Your task to perform on an android device: Open Amazon Image 0: 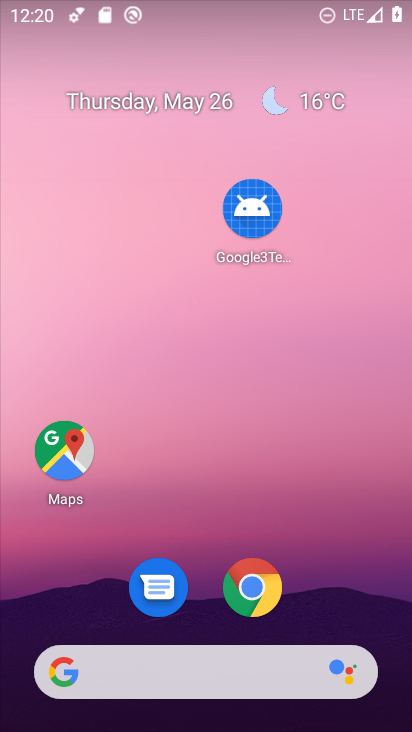
Step 0: click (264, 596)
Your task to perform on an android device: Open Amazon Image 1: 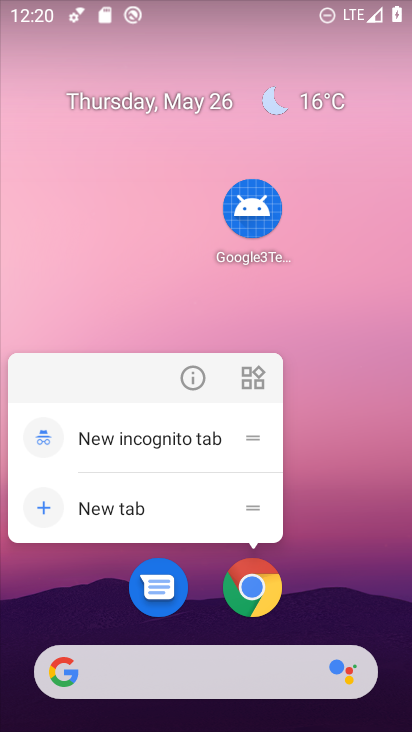
Step 1: click (264, 596)
Your task to perform on an android device: Open Amazon Image 2: 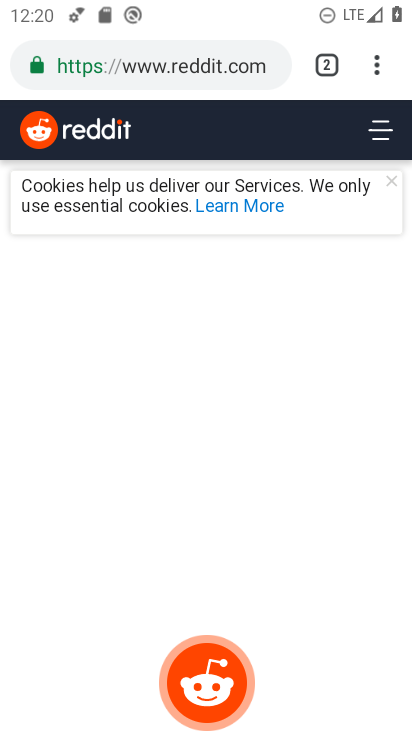
Step 2: click (154, 58)
Your task to perform on an android device: Open Amazon Image 3: 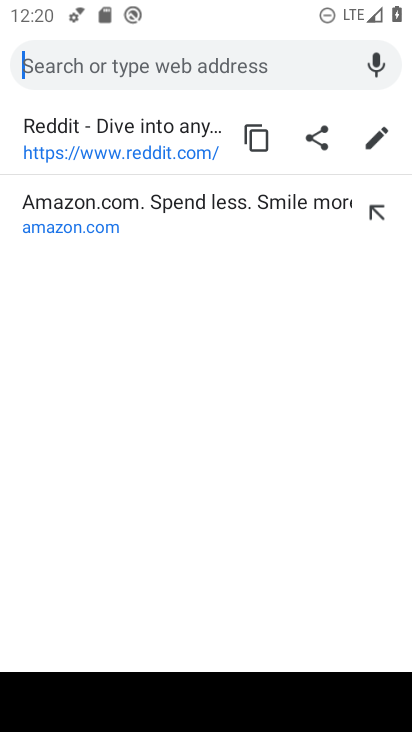
Step 3: type "amazon"
Your task to perform on an android device: Open Amazon Image 4: 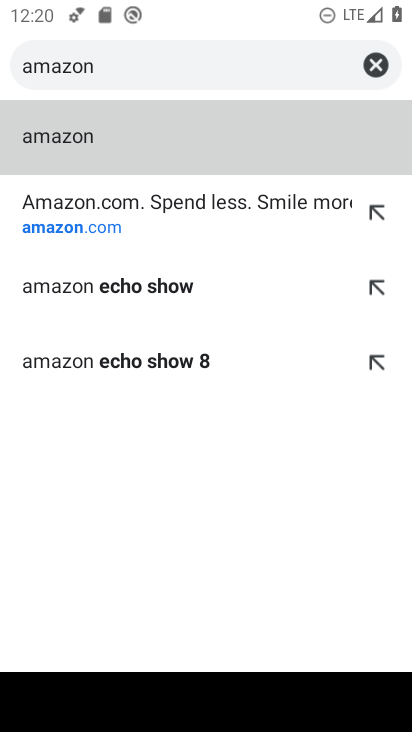
Step 4: click (250, 205)
Your task to perform on an android device: Open Amazon Image 5: 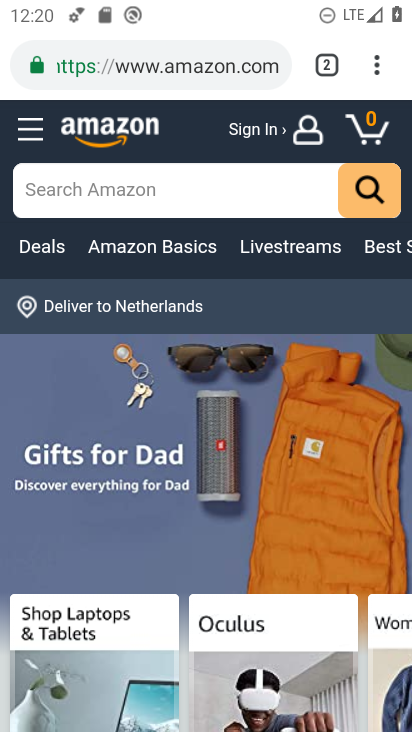
Step 5: task complete